Your task to perform on an android device: Open Maps and search for coffee Image 0: 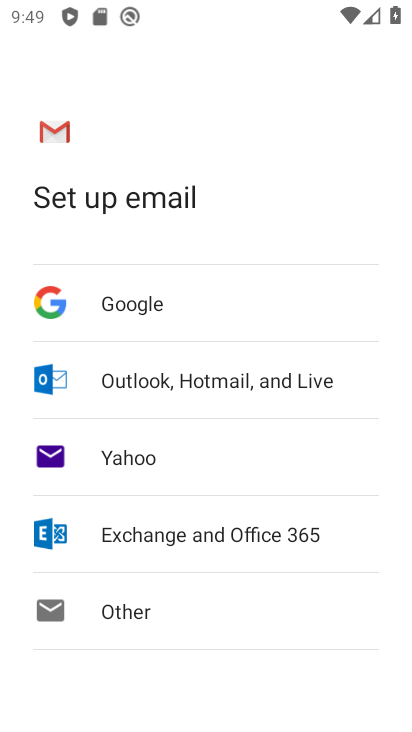
Step 0: click (93, 423)
Your task to perform on an android device: Open Maps and search for coffee Image 1: 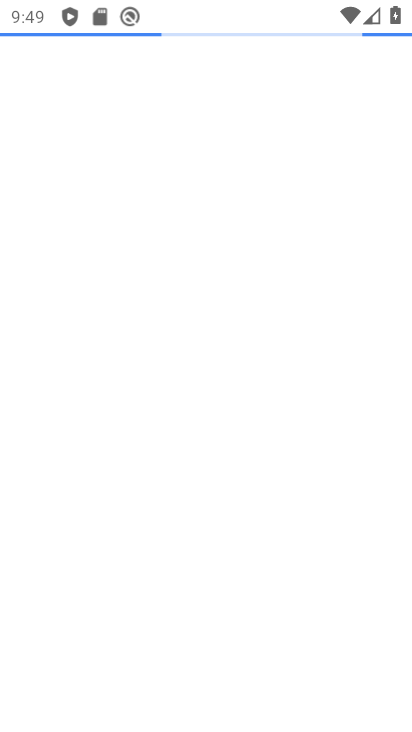
Step 1: press home button
Your task to perform on an android device: Open Maps and search for coffee Image 2: 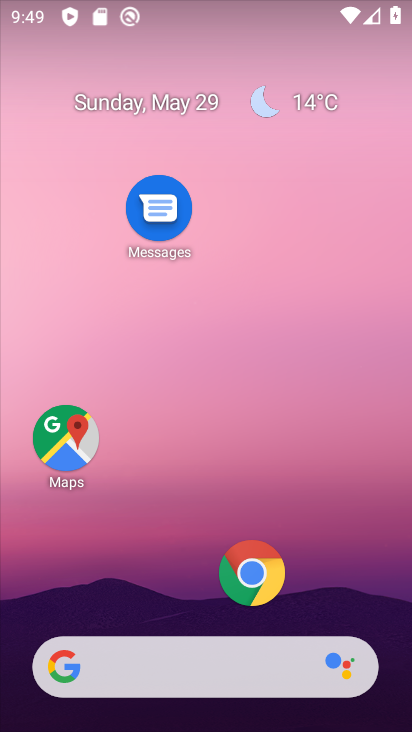
Step 2: click (68, 437)
Your task to perform on an android device: Open Maps and search for coffee Image 3: 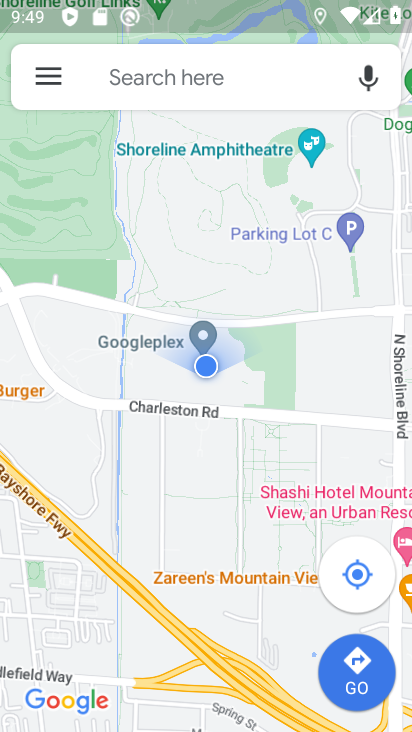
Step 3: click (161, 91)
Your task to perform on an android device: Open Maps and search for coffee Image 4: 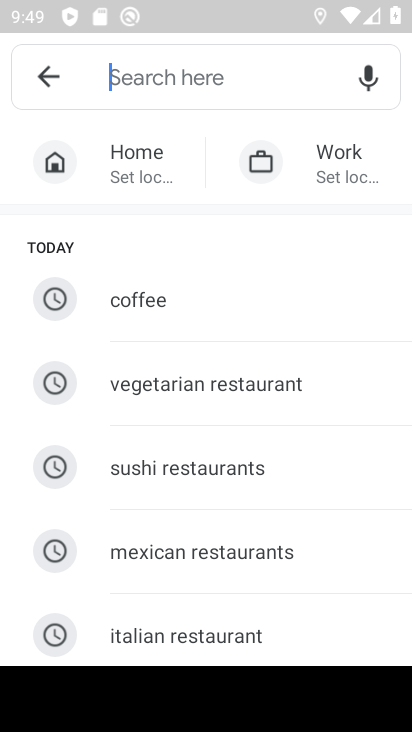
Step 4: click (269, 320)
Your task to perform on an android device: Open Maps and search for coffee Image 5: 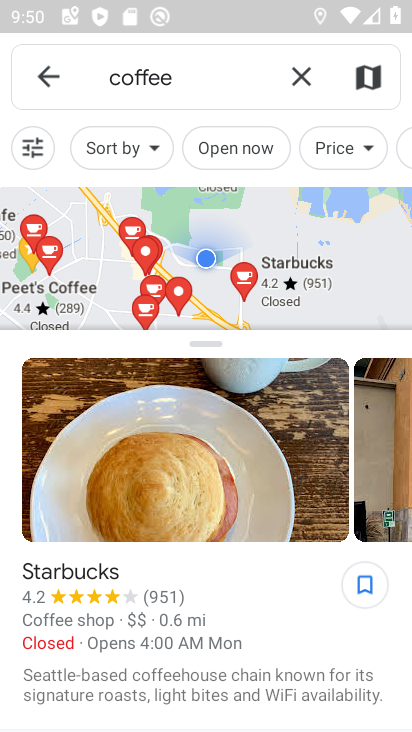
Step 5: task complete